Your task to perform on an android device: turn on translation in the chrome app Image 0: 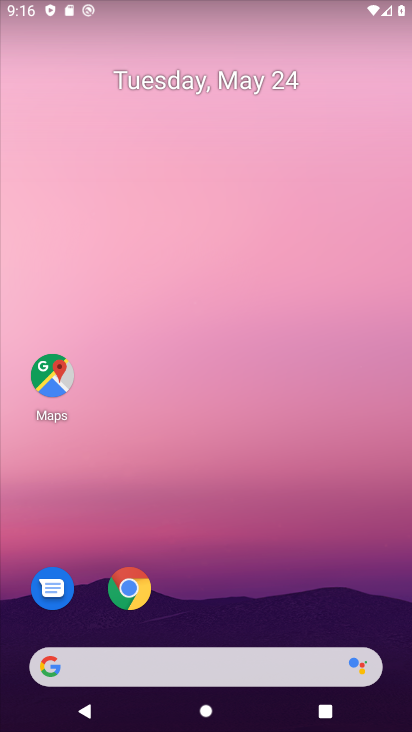
Step 0: click (136, 592)
Your task to perform on an android device: turn on translation in the chrome app Image 1: 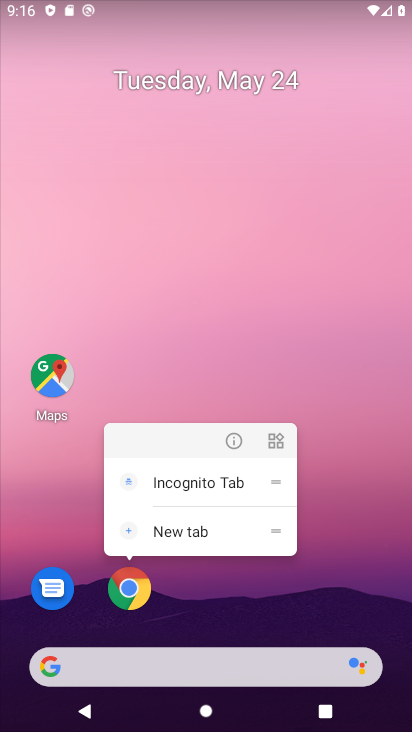
Step 1: click (131, 592)
Your task to perform on an android device: turn on translation in the chrome app Image 2: 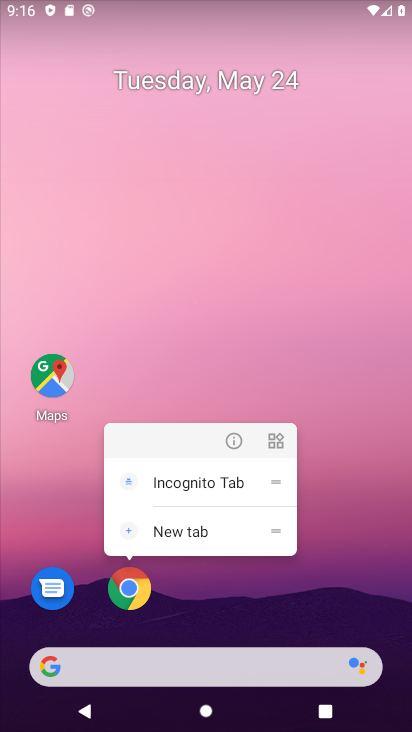
Step 2: click (122, 586)
Your task to perform on an android device: turn on translation in the chrome app Image 3: 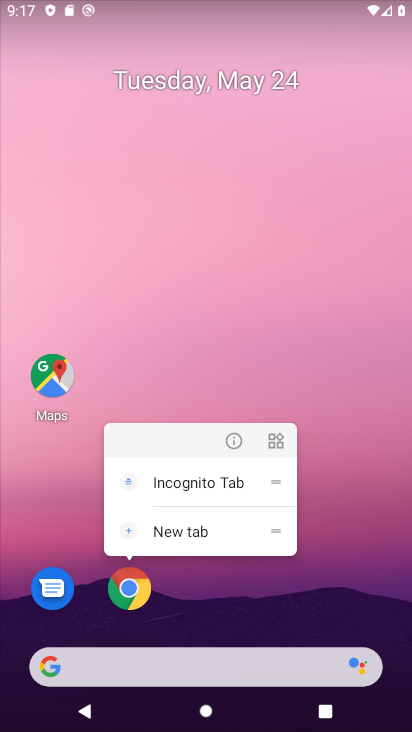
Step 3: click (127, 590)
Your task to perform on an android device: turn on translation in the chrome app Image 4: 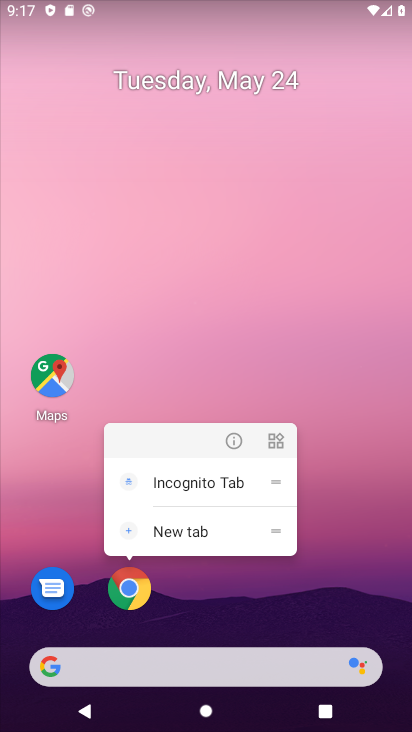
Step 4: click (123, 582)
Your task to perform on an android device: turn on translation in the chrome app Image 5: 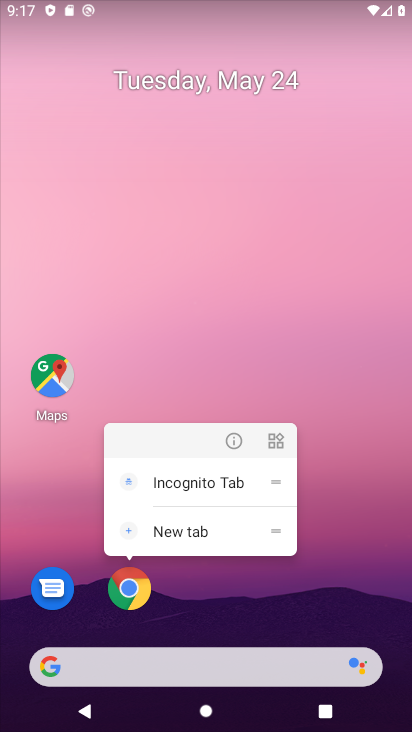
Step 5: click (129, 585)
Your task to perform on an android device: turn on translation in the chrome app Image 6: 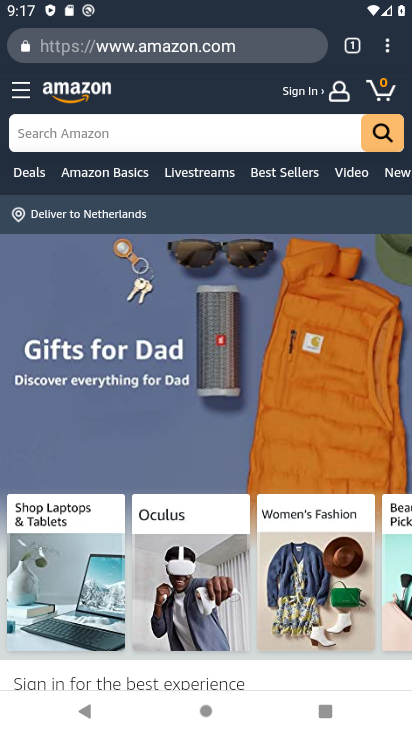
Step 6: drag from (382, 48) to (245, 553)
Your task to perform on an android device: turn on translation in the chrome app Image 7: 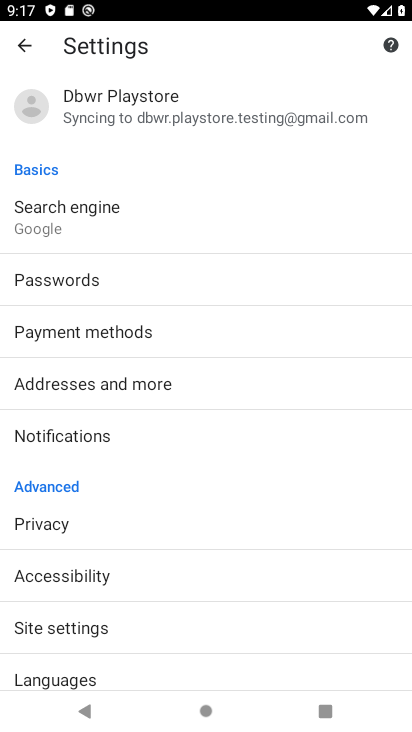
Step 7: click (83, 670)
Your task to perform on an android device: turn on translation in the chrome app Image 8: 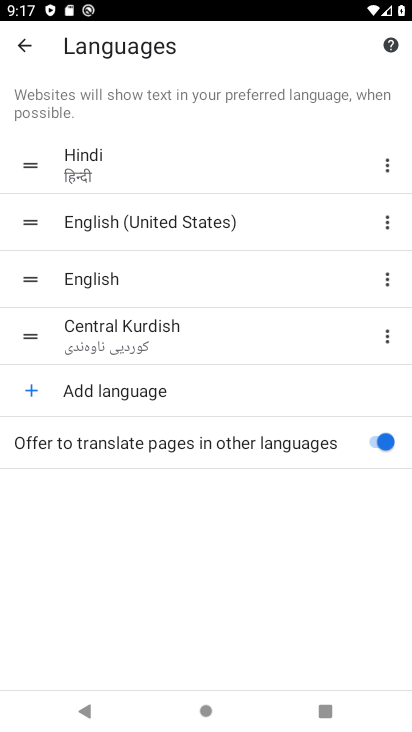
Step 8: task complete